Your task to perform on an android device: search for starred emails in the gmail app Image 0: 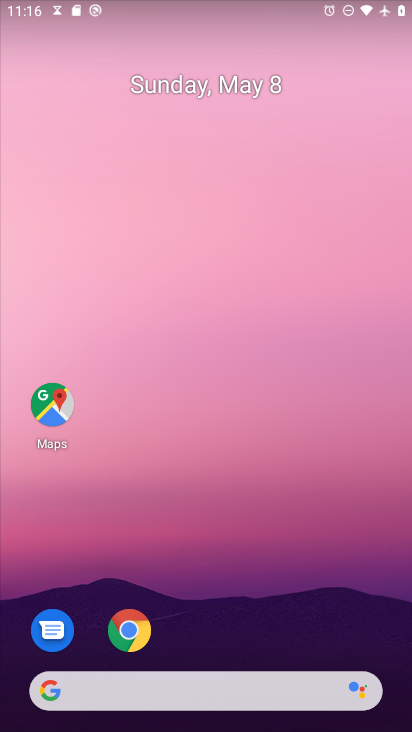
Step 0: drag from (156, 692) to (258, 239)
Your task to perform on an android device: search for starred emails in the gmail app Image 1: 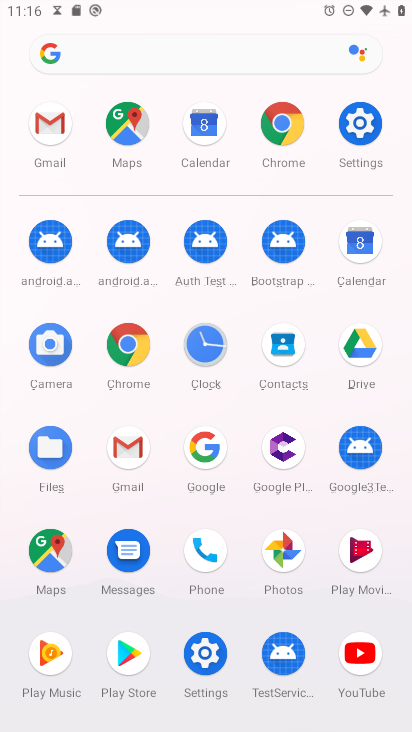
Step 1: click (49, 136)
Your task to perform on an android device: search for starred emails in the gmail app Image 2: 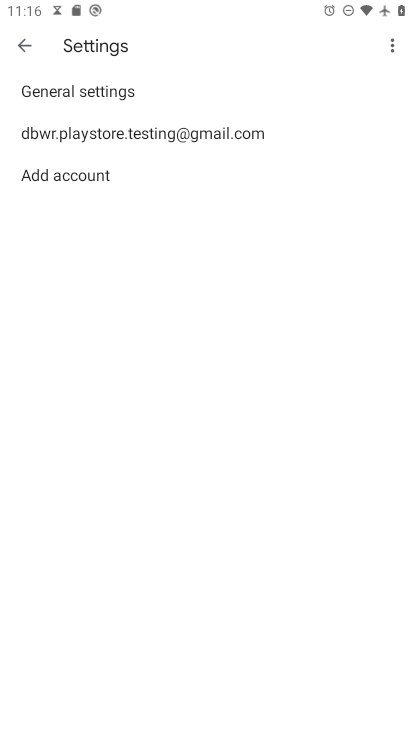
Step 2: click (24, 41)
Your task to perform on an android device: search for starred emails in the gmail app Image 3: 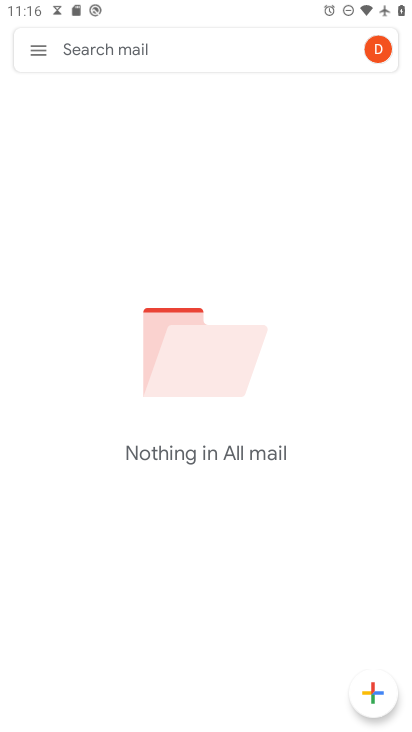
Step 3: click (38, 45)
Your task to perform on an android device: search for starred emails in the gmail app Image 4: 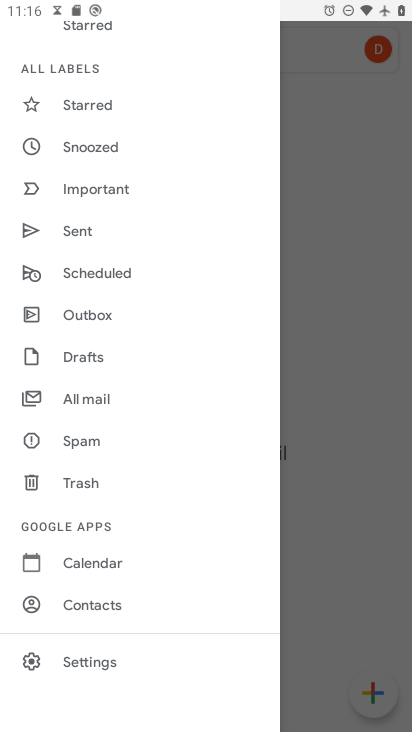
Step 4: click (107, 108)
Your task to perform on an android device: search for starred emails in the gmail app Image 5: 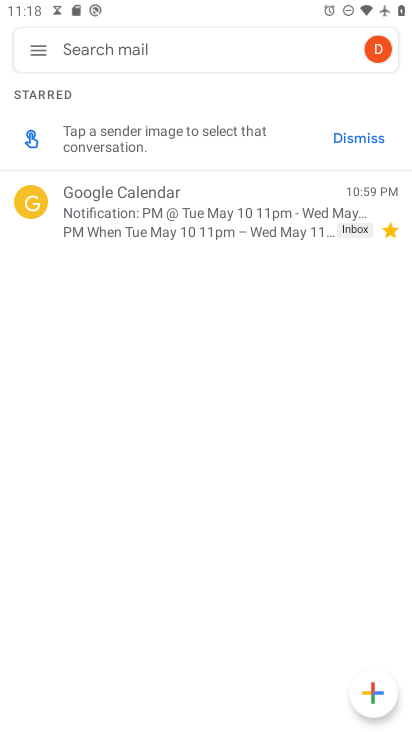
Step 5: task complete